Your task to perform on an android device: open app "Microsoft Authenticator" Image 0: 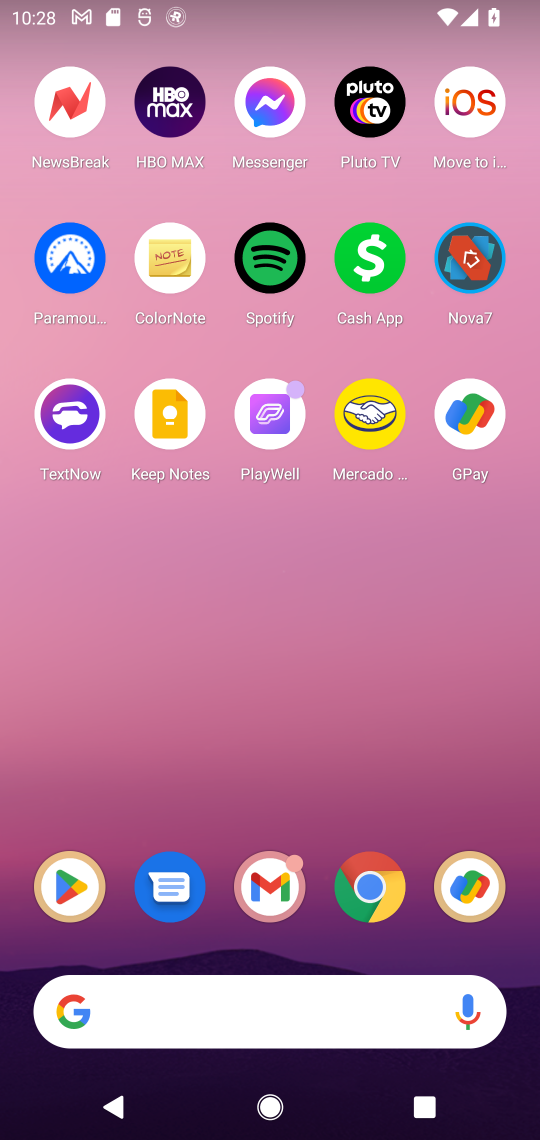
Step 0: click (73, 878)
Your task to perform on an android device: open app "Microsoft Authenticator" Image 1: 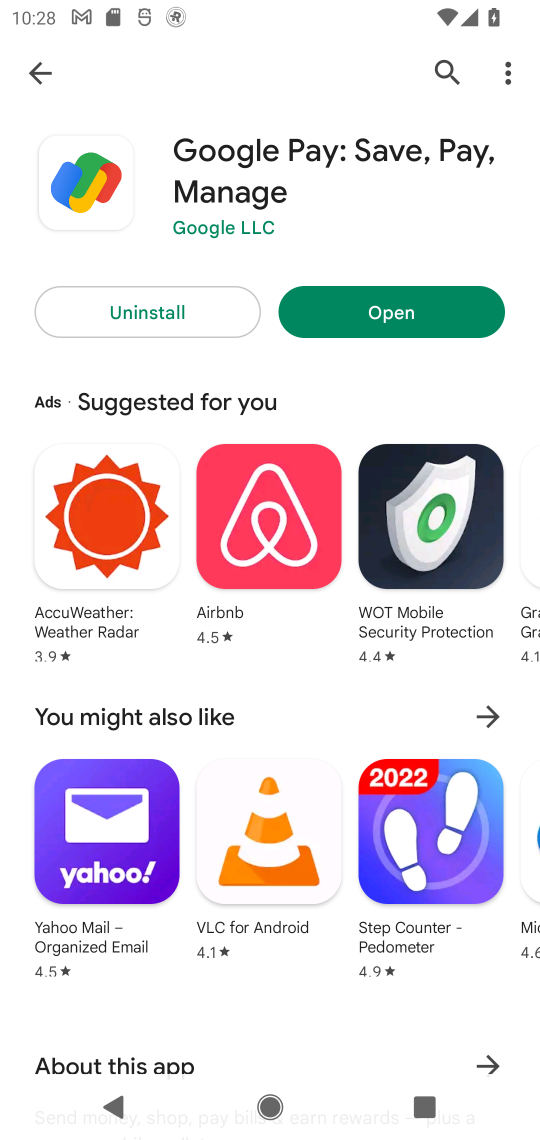
Step 1: click (451, 86)
Your task to perform on an android device: open app "Microsoft Authenticator" Image 2: 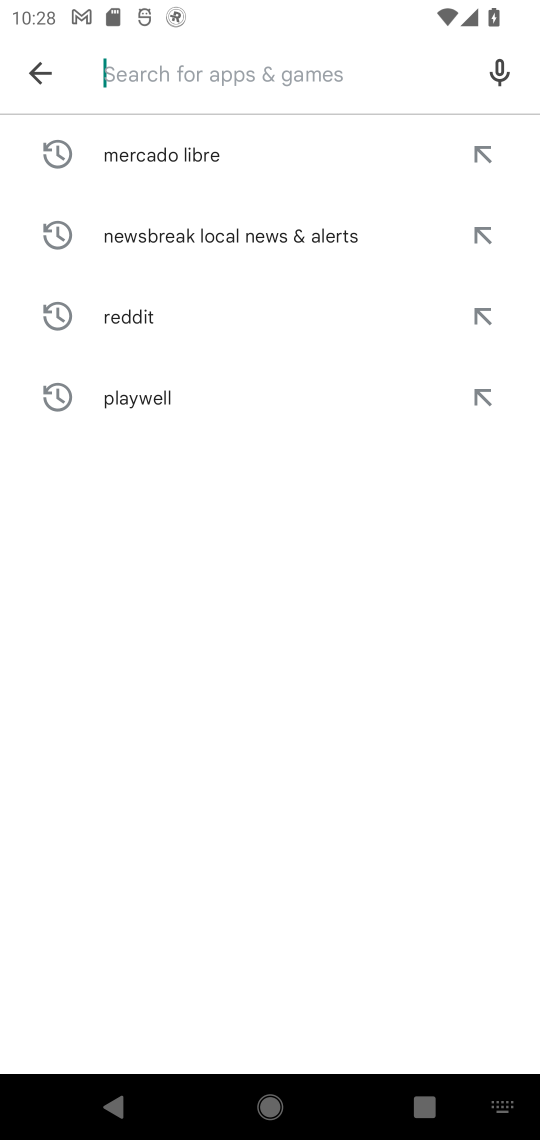
Step 2: type "microsoft authenticator"
Your task to perform on an android device: open app "Microsoft Authenticator" Image 3: 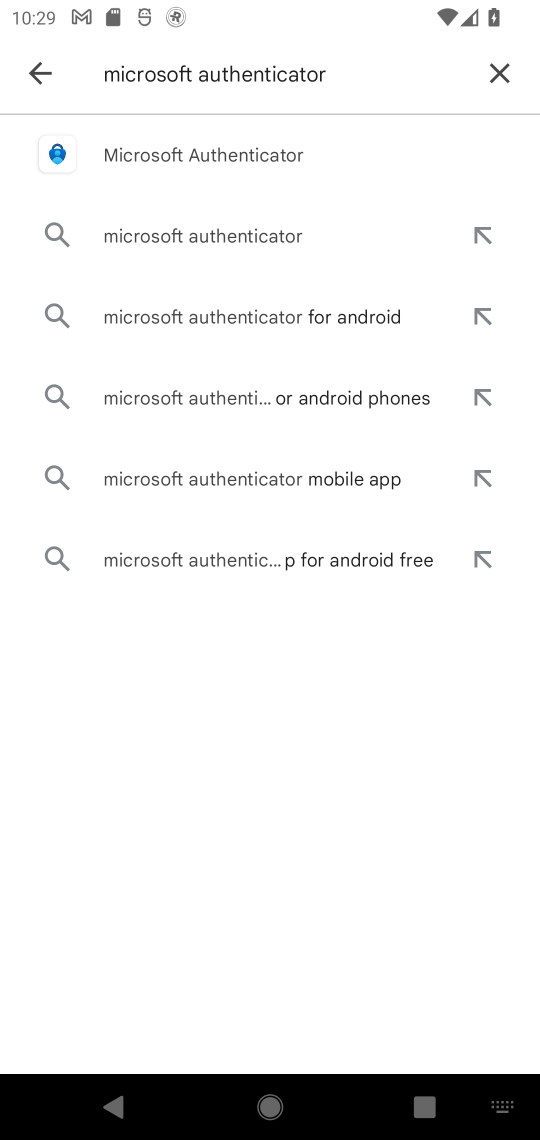
Step 3: click (89, 141)
Your task to perform on an android device: open app "Microsoft Authenticator" Image 4: 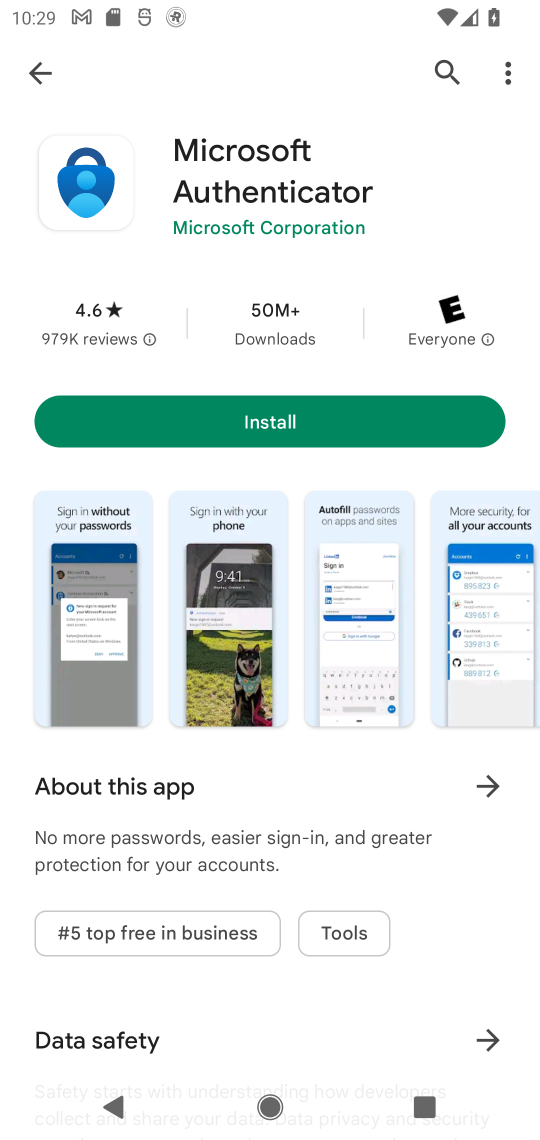
Step 4: task complete